Your task to perform on an android device: Open calendar and show me the second week of next month Image 0: 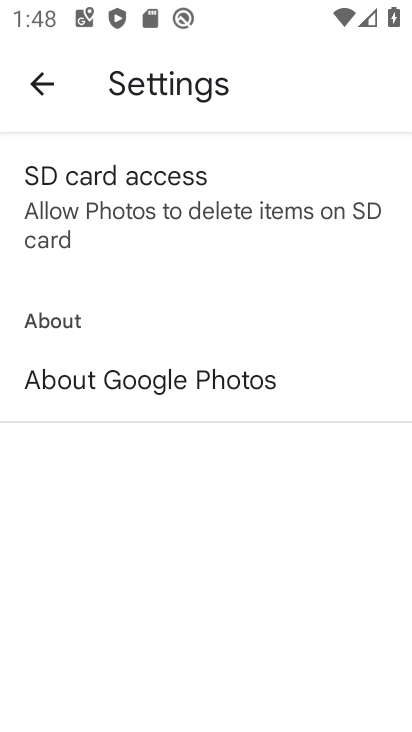
Step 0: press home button
Your task to perform on an android device: Open calendar and show me the second week of next month Image 1: 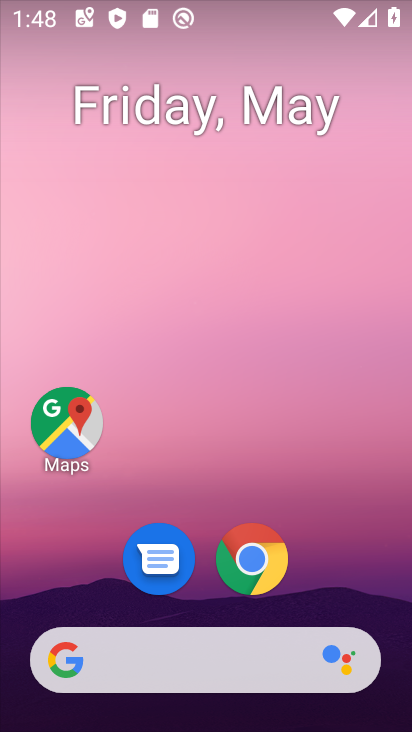
Step 1: drag from (324, 468) to (335, 174)
Your task to perform on an android device: Open calendar and show me the second week of next month Image 2: 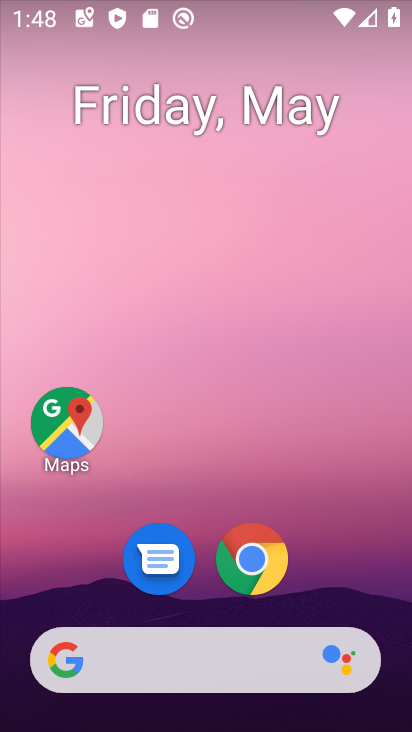
Step 2: drag from (329, 582) to (366, 234)
Your task to perform on an android device: Open calendar and show me the second week of next month Image 3: 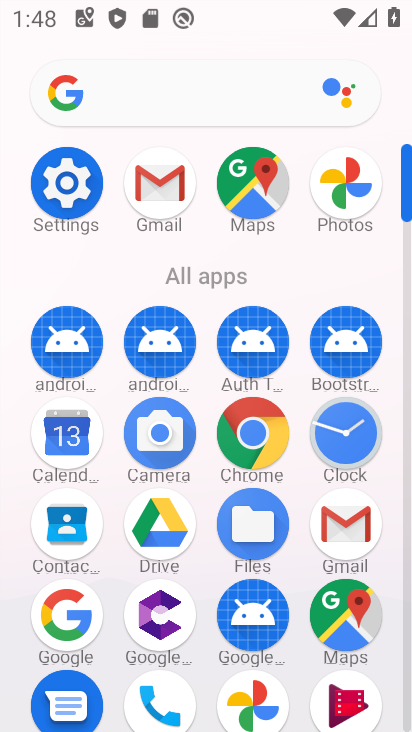
Step 3: click (72, 463)
Your task to perform on an android device: Open calendar and show me the second week of next month Image 4: 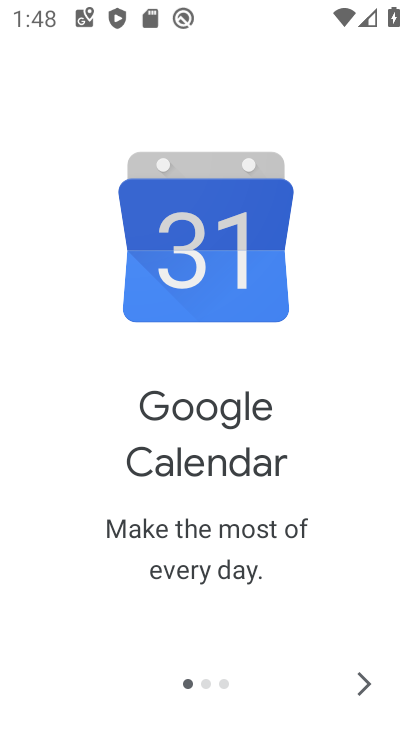
Step 4: click (354, 686)
Your task to perform on an android device: Open calendar and show me the second week of next month Image 5: 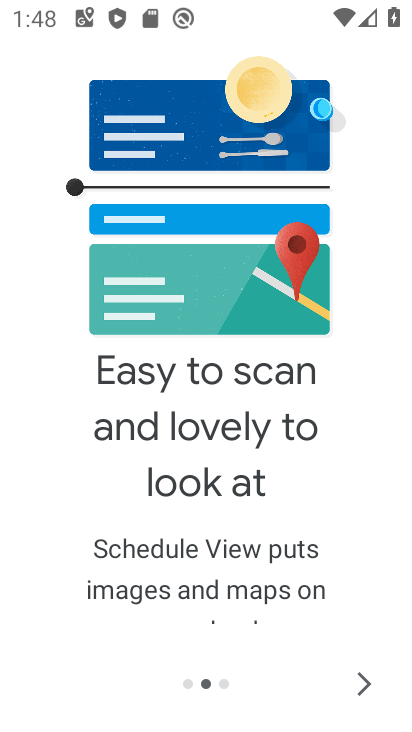
Step 5: click (354, 686)
Your task to perform on an android device: Open calendar and show me the second week of next month Image 6: 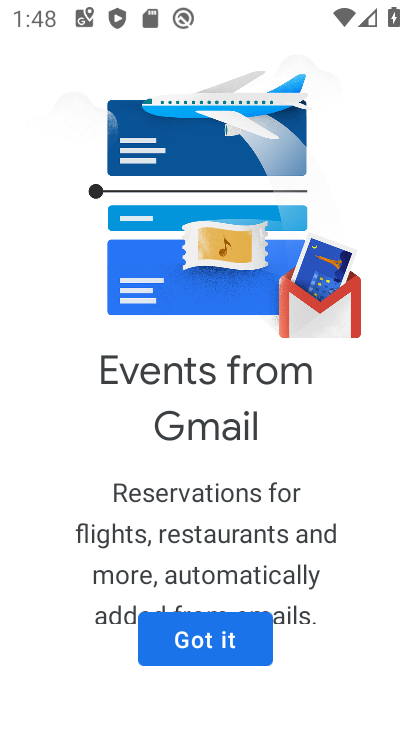
Step 6: click (248, 650)
Your task to perform on an android device: Open calendar and show me the second week of next month Image 7: 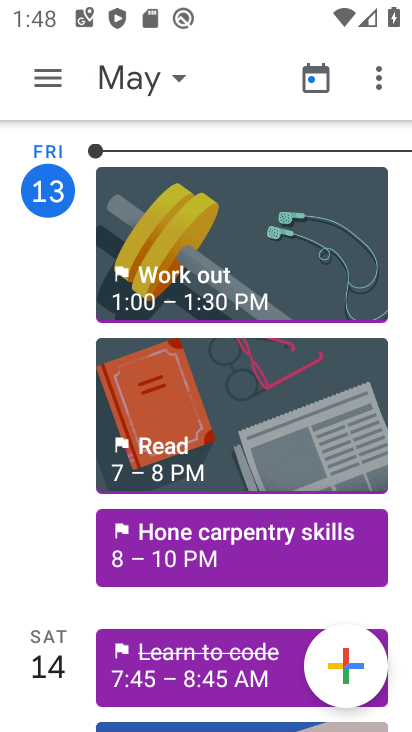
Step 7: click (123, 78)
Your task to perform on an android device: Open calendar and show me the second week of next month Image 8: 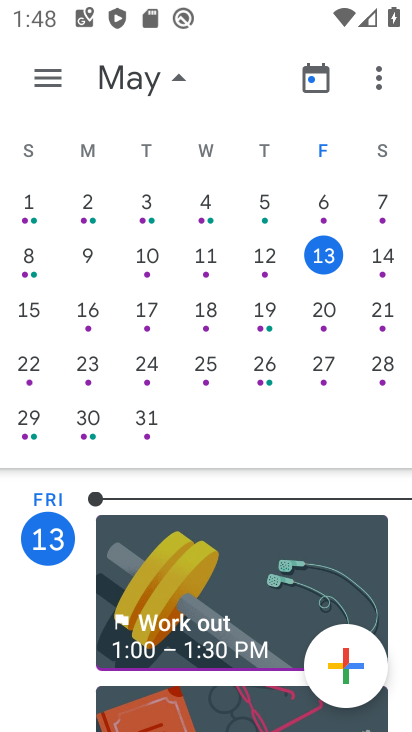
Step 8: drag from (237, 301) to (30, 287)
Your task to perform on an android device: Open calendar and show me the second week of next month Image 9: 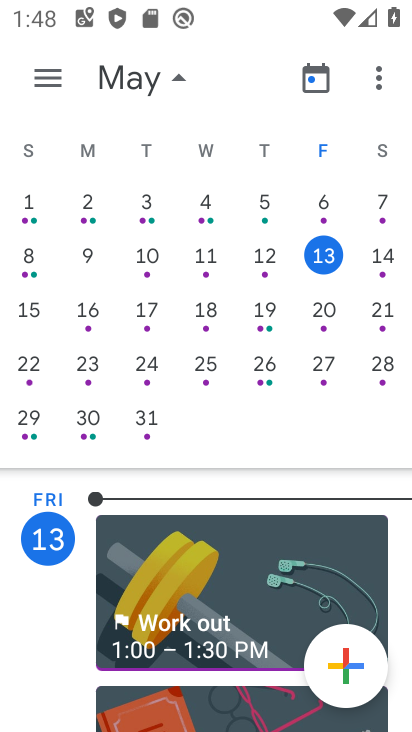
Step 9: drag from (308, 341) to (20, 274)
Your task to perform on an android device: Open calendar and show me the second week of next month Image 10: 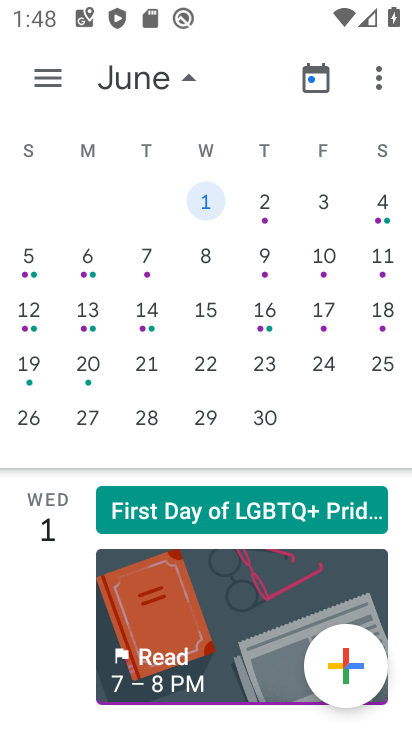
Step 10: drag from (364, 345) to (355, 380)
Your task to perform on an android device: Open calendar and show me the second week of next month Image 11: 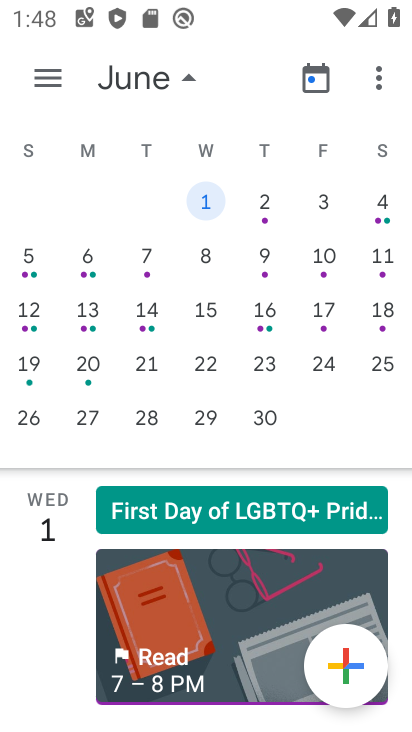
Step 11: click (32, 261)
Your task to perform on an android device: Open calendar and show me the second week of next month Image 12: 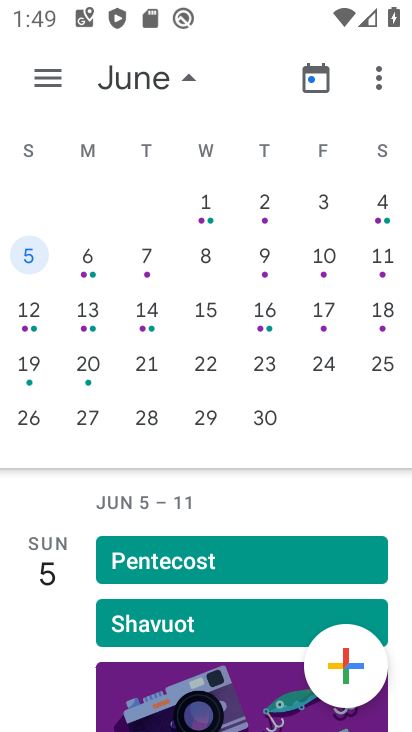
Step 12: click (87, 273)
Your task to perform on an android device: Open calendar and show me the second week of next month Image 13: 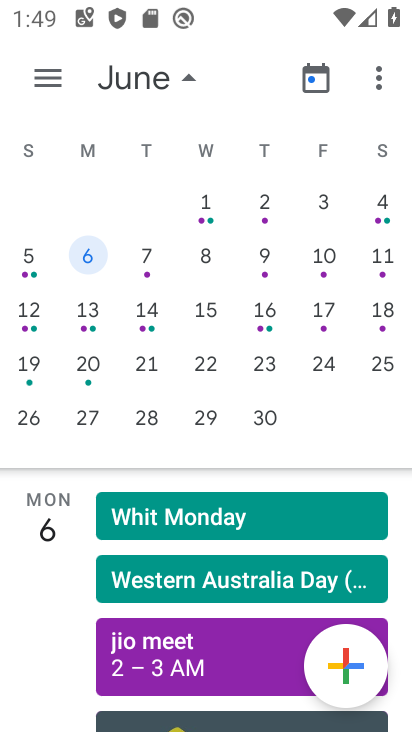
Step 13: click (155, 272)
Your task to perform on an android device: Open calendar and show me the second week of next month Image 14: 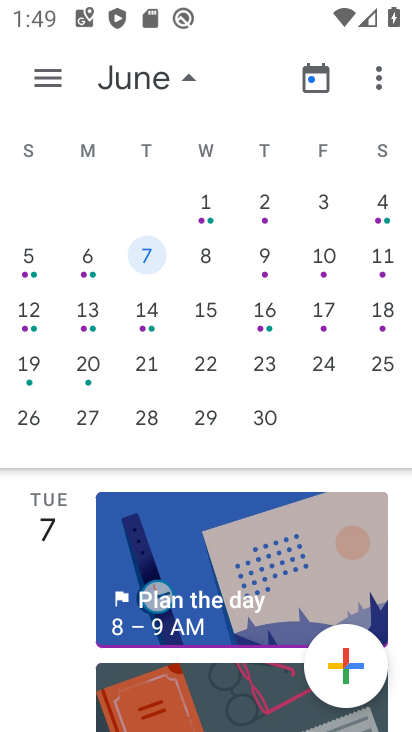
Step 14: click (212, 258)
Your task to perform on an android device: Open calendar and show me the second week of next month Image 15: 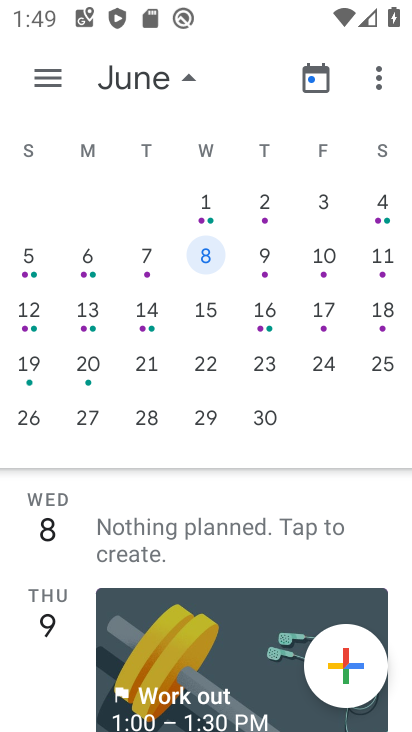
Step 15: click (267, 281)
Your task to perform on an android device: Open calendar and show me the second week of next month Image 16: 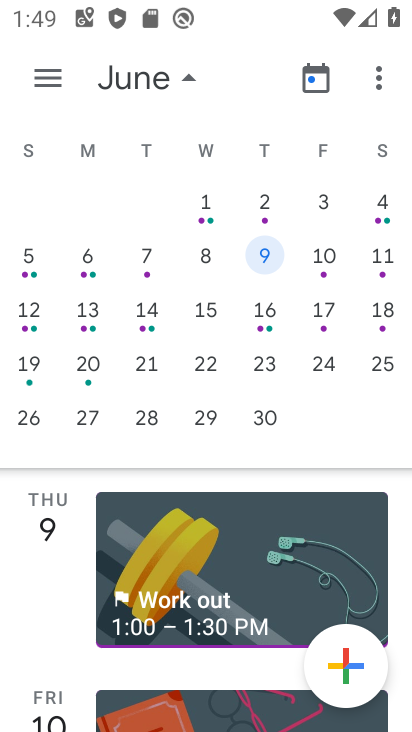
Step 16: click (322, 281)
Your task to perform on an android device: Open calendar and show me the second week of next month Image 17: 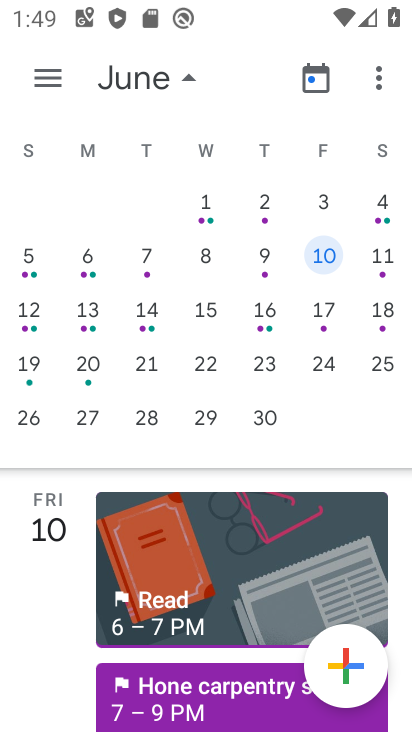
Step 17: click (377, 262)
Your task to perform on an android device: Open calendar and show me the second week of next month Image 18: 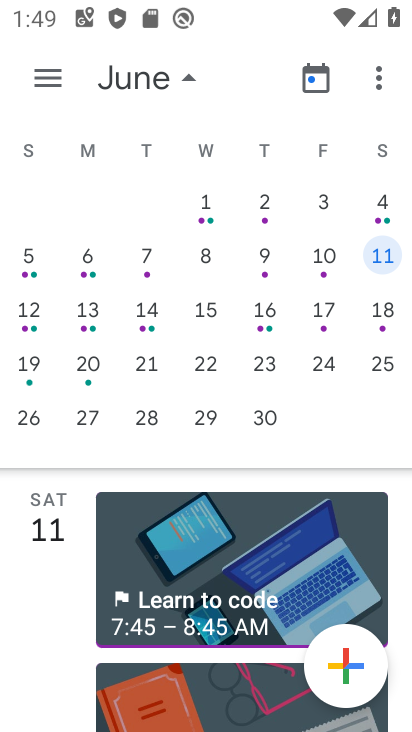
Step 18: task complete